Your task to perform on an android device: refresh tabs in the chrome app Image 0: 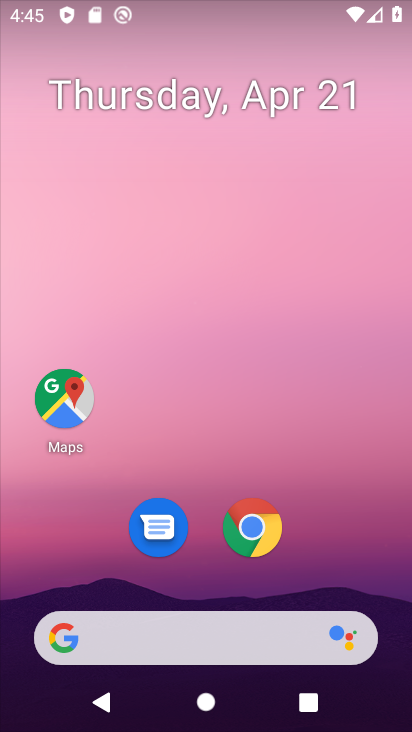
Step 0: drag from (373, 478) to (361, 247)
Your task to perform on an android device: refresh tabs in the chrome app Image 1: 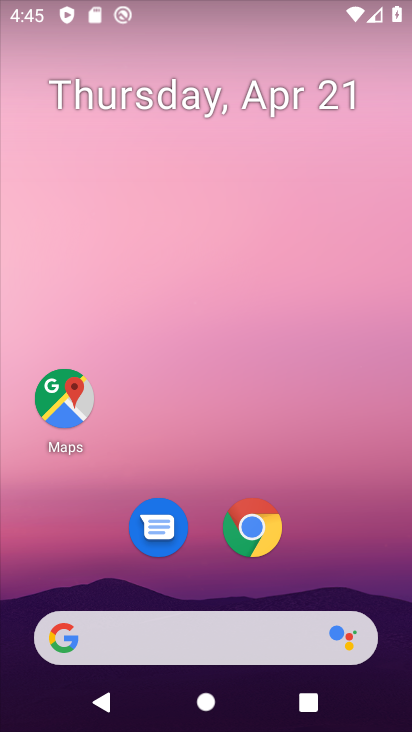
Step 1: drag from (384, 599) to (362, 198)
Your task to perform on an android device: refresh tabs in the chrome app Image 2: 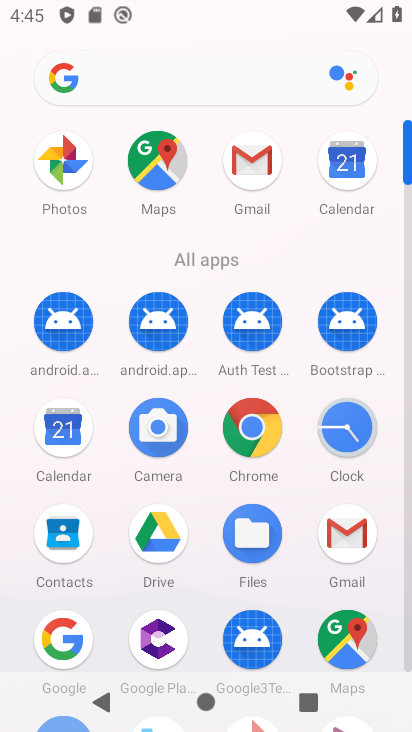
Step 2: click (254, 429)
Your task to perform on an android device: refresh tabs in the chrome app Image 3: 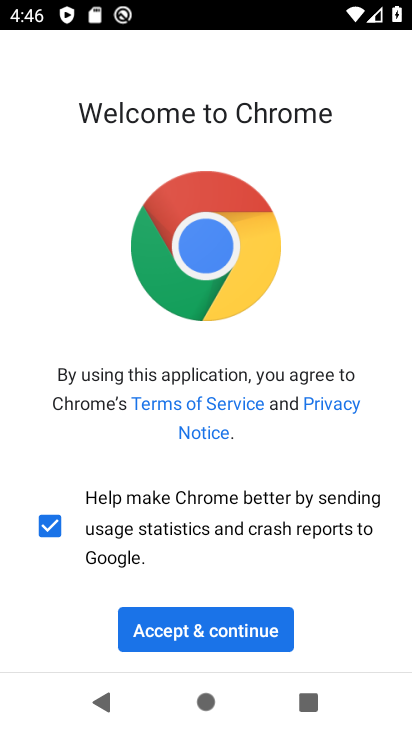
Step 3: click (215, 620)
Your task to perform on an android device: refresh tabs in the chrome app Image 4: 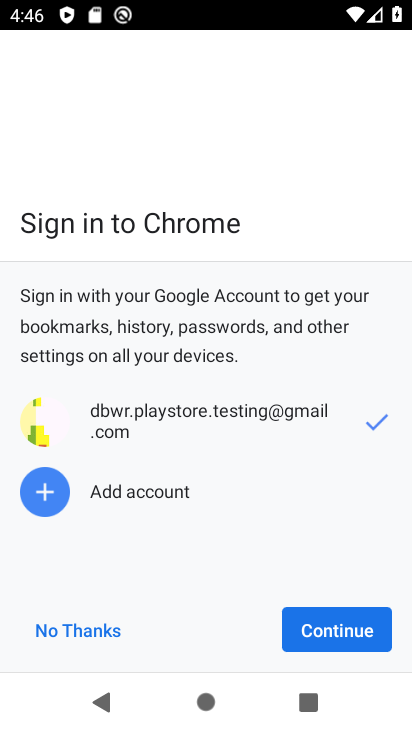
Step 4: click (370, 623)
Your task to perform on an android device: refresh tabs in the chrome app Image 5: 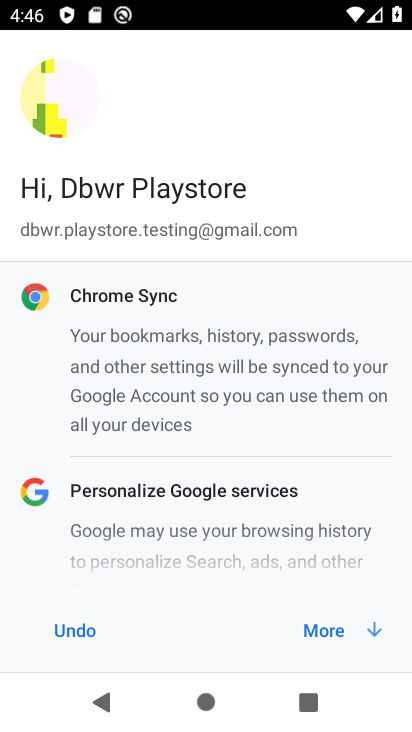
Step 5: click (324, 628)
Your task to perform on an android device: refresh tabs in the chrome app Image 6: 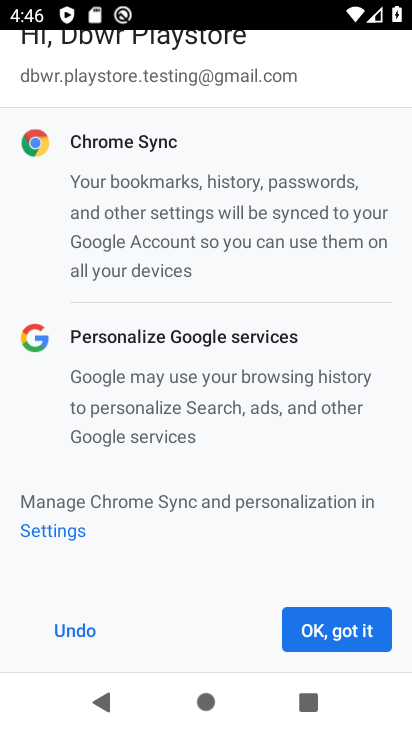
Step 6: click (313, 631)
Your task to perform on an android device: refresh tabs in the chrome app Image 7: 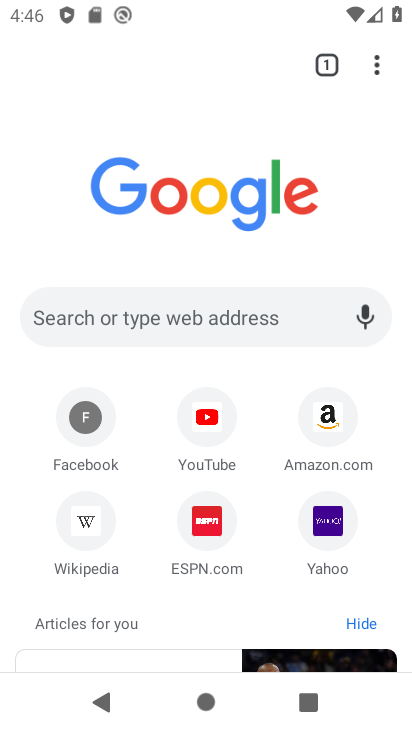
Step 7: click (376, 59)
Your task to perform on an android device: refresh tabs in the chrome app Image 8: 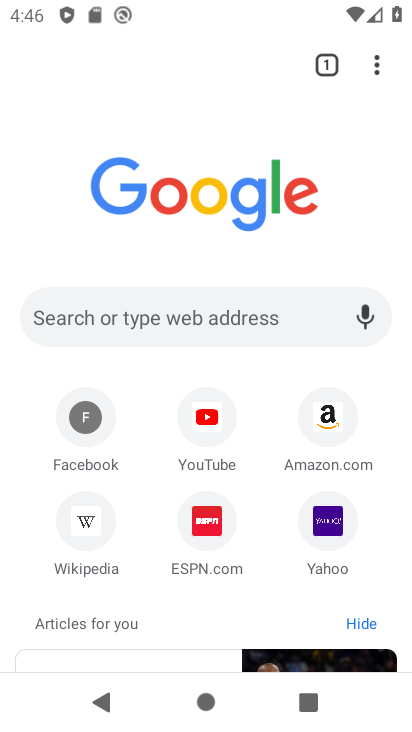
Step 8: click (376, 60)
Your task to perform on an android device: refresh tabs in the chrome app Image 9: 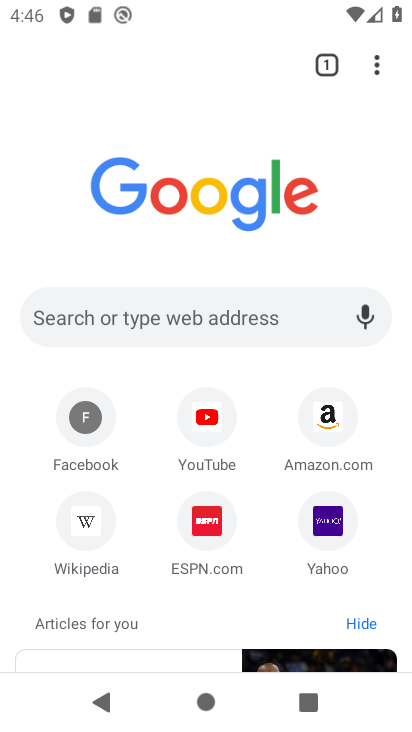
Step 9: click (376, 60)
Your task to perform on an android device: refresh tabs in the chrome app Image 10: 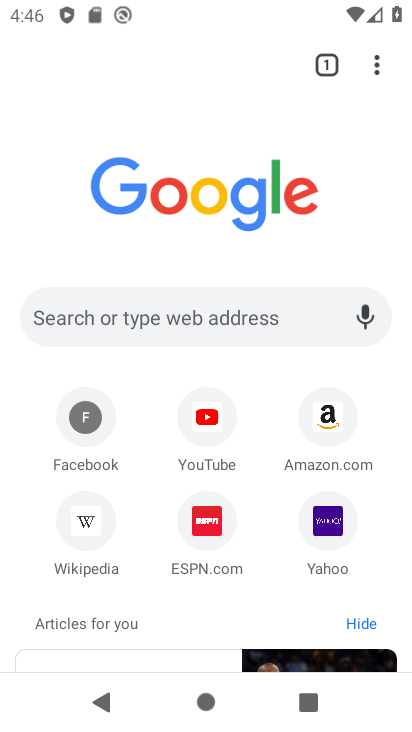
Step 10: click (376, 60)
Your task to perform on an android device: refresh tabs in the chrome app Image 11: 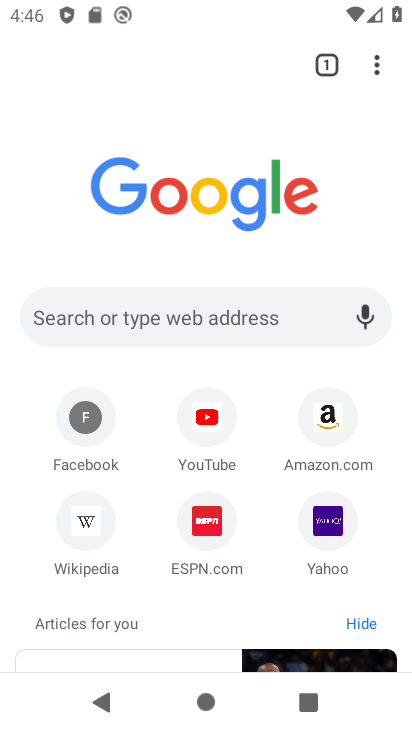
Step 11: click (376, 60)
Your task to perform on an android device: refresh tabs in the chrome app Image 12: 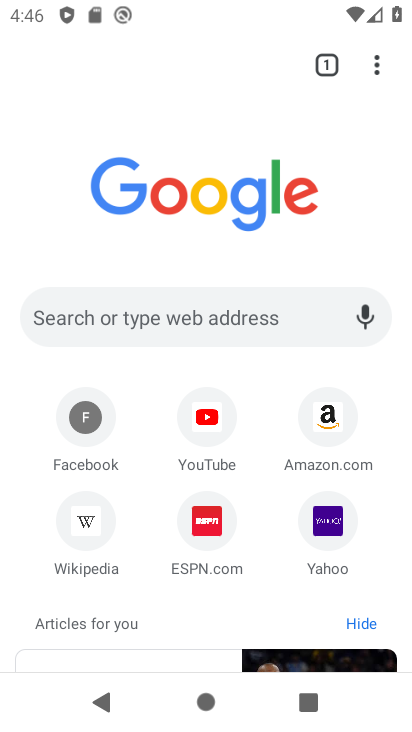
Step 12: click (376, 60)
Your task to perform on an android device: refresh tabs in the chrome app Image 13: 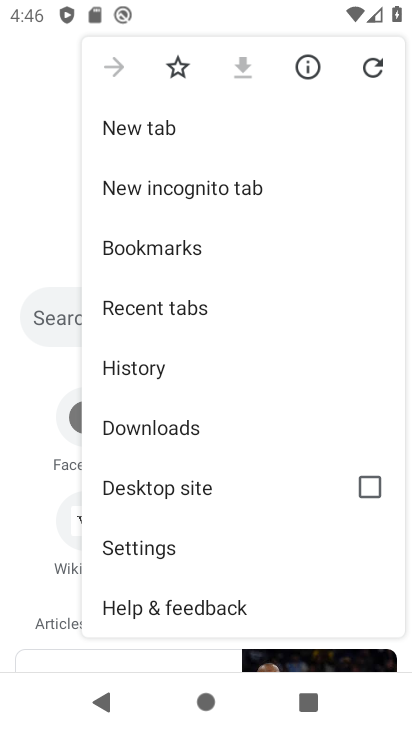
Step 13: drag from (293, 565) to (280, 191)
Your task to perform on an android device: refresh tabs in the chrome app Image 14: 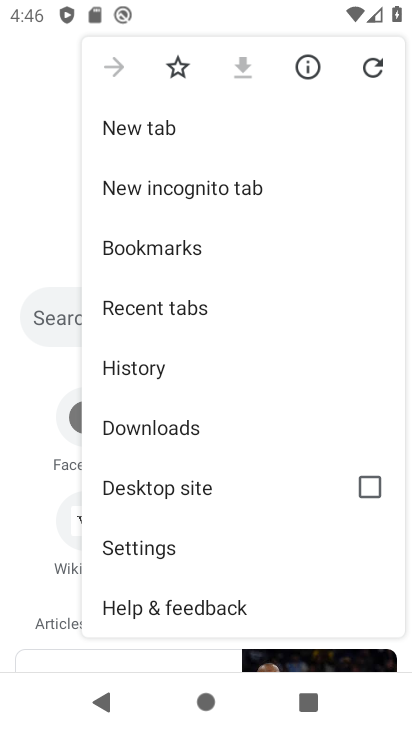
Step 14: click (360, 63)
Your task to perform on an android device: refresh tabs in the chrome app Image 15: 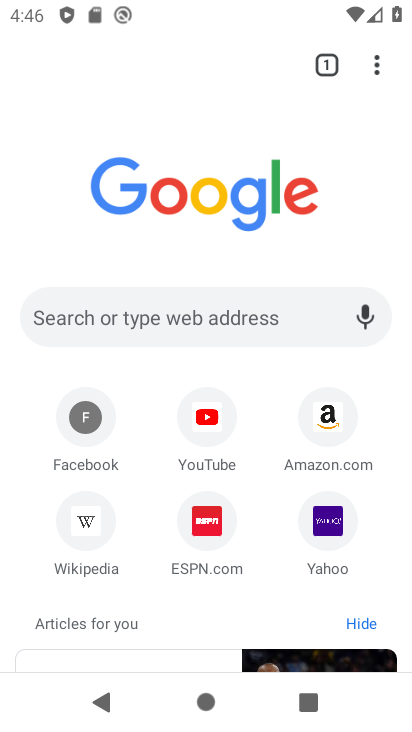
Step 15: task complete